Your task to perform on an android device: search for starred emails in the gmail app Image 0: 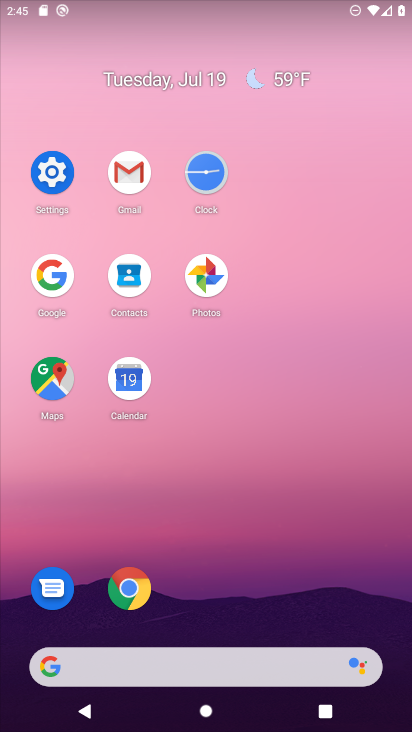
Step 0: click (123, 171)
Your task to perform on an android device: search for starred emails in the gmail app Image 1: 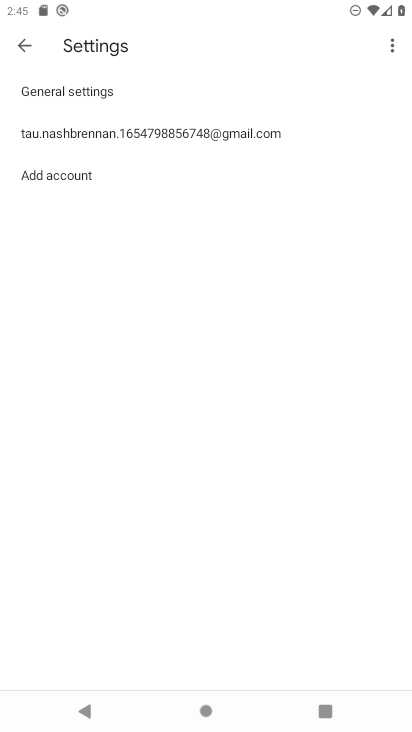
Step 1: click (29, 62)
Your task to perform on an android device: search for starred emails in the gmail app Image 2: 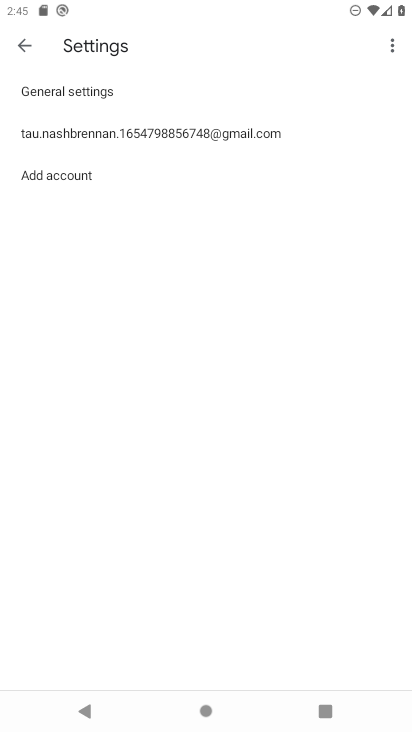
Step 2: click (11, 40)
Your task to perform on an android device: search for starred emails in the gmail app Image 3: 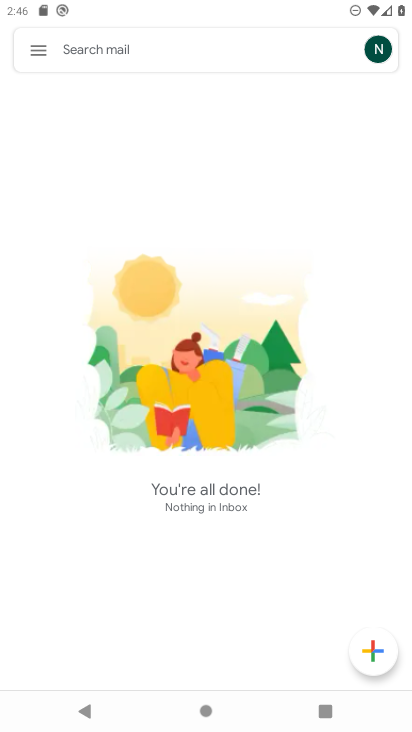
Step 3: click (33, 43)
Your task to perform on an android device: search for starred emails in the gmail app Image 4: 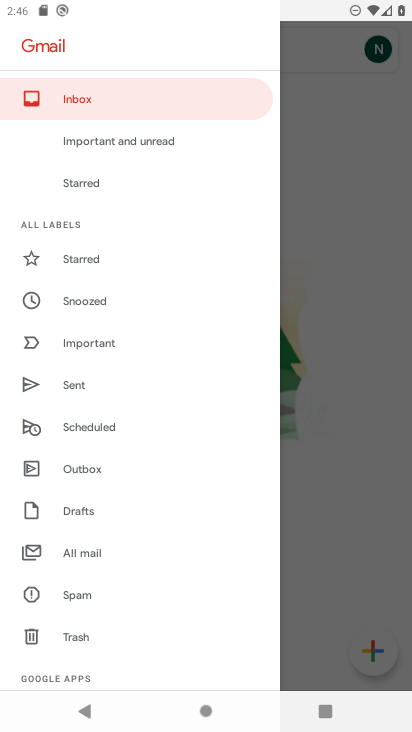
Step 4: click (152, 552)
Your task to perform on an android device: search for starred emails in the gmail app Image 5: 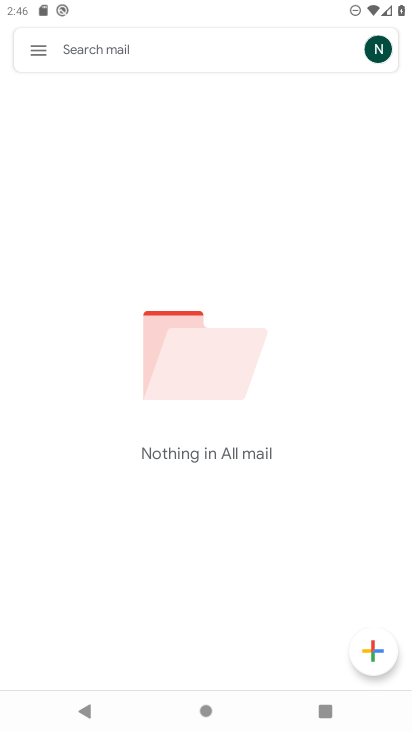
Step 5: task complete